Your task to perform on an android device: turn off smart reply in the gmail app Image 0: 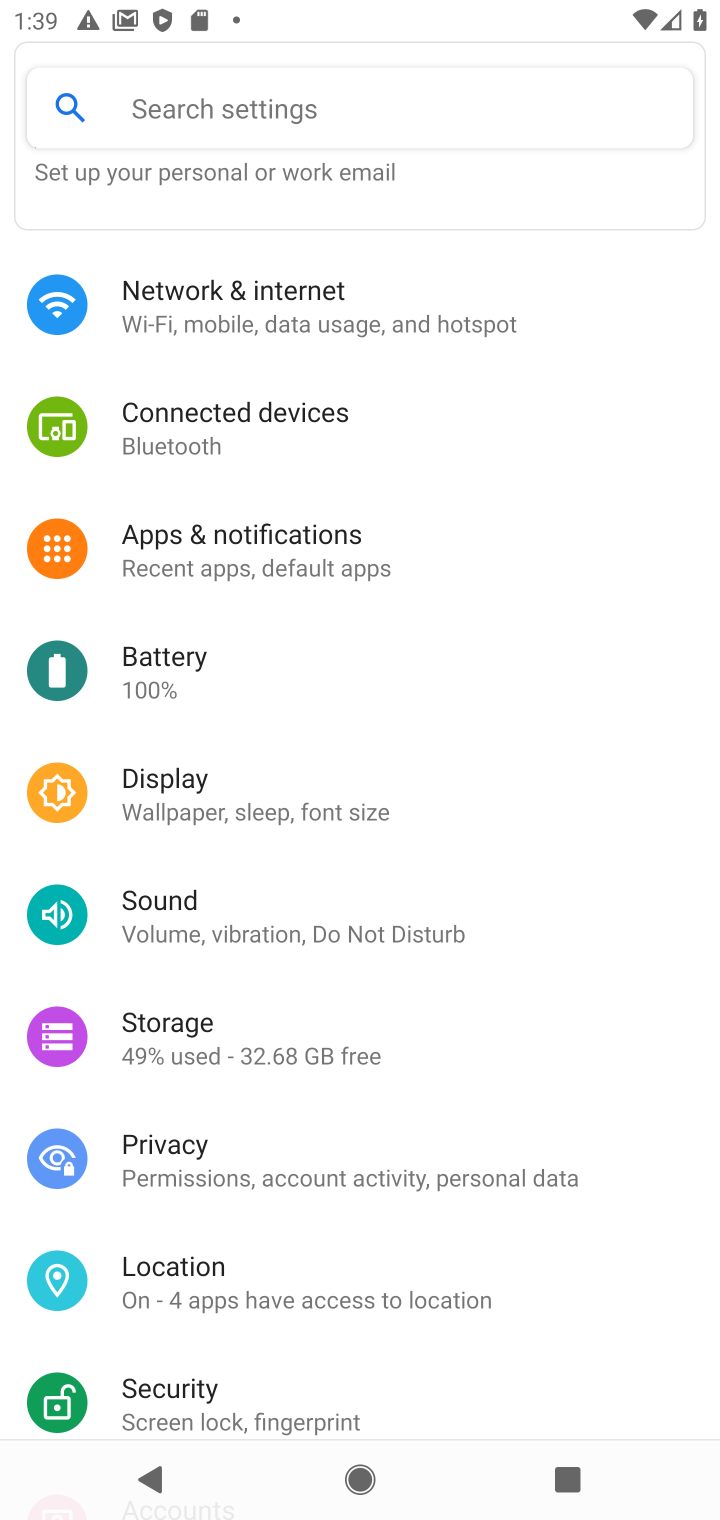
Step 0: press back button
Your task to perform on an android device: turn off smart reply in the gmail app Image 1: 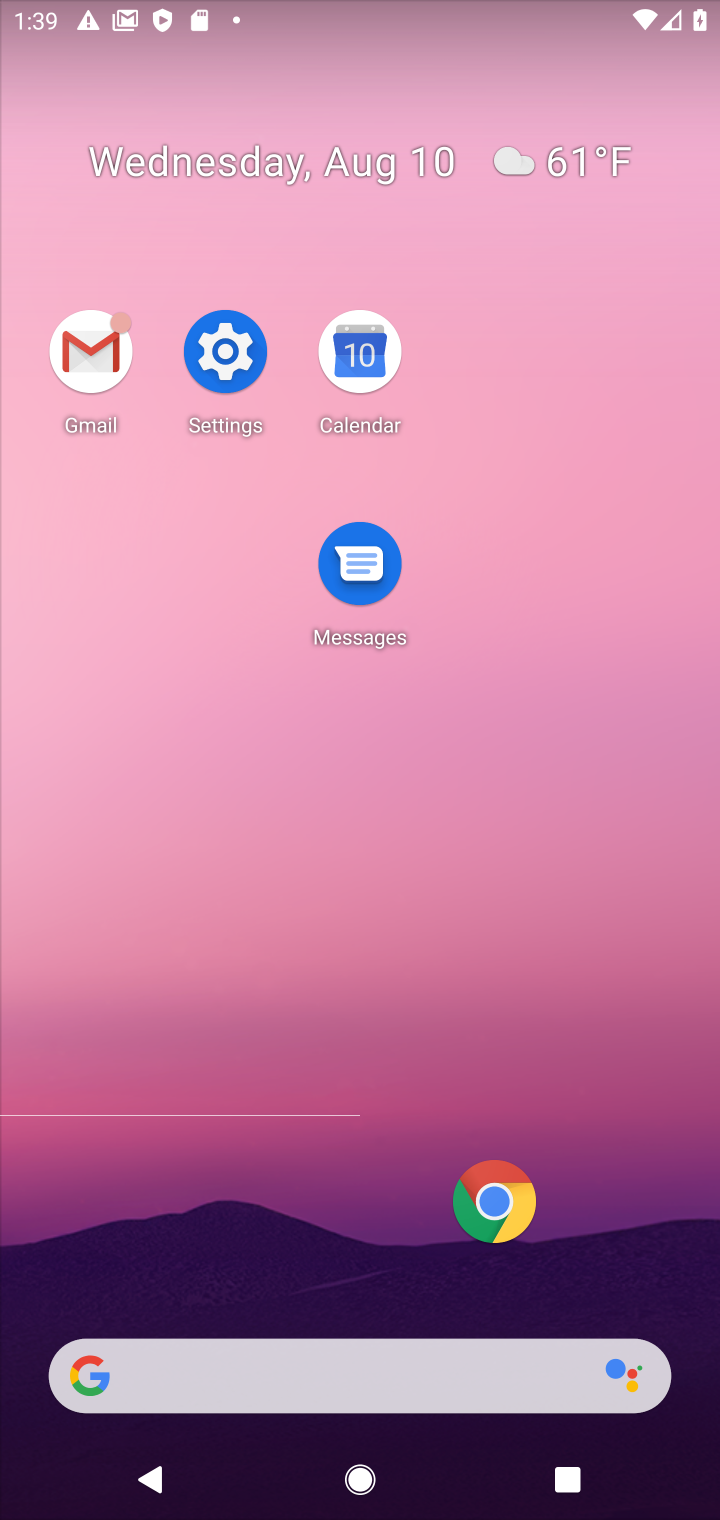
Step 1: drag from (277, 1079) to (289, 650)
Your task to perform on an android device: turn off smart reply in the gmail app Image 2: 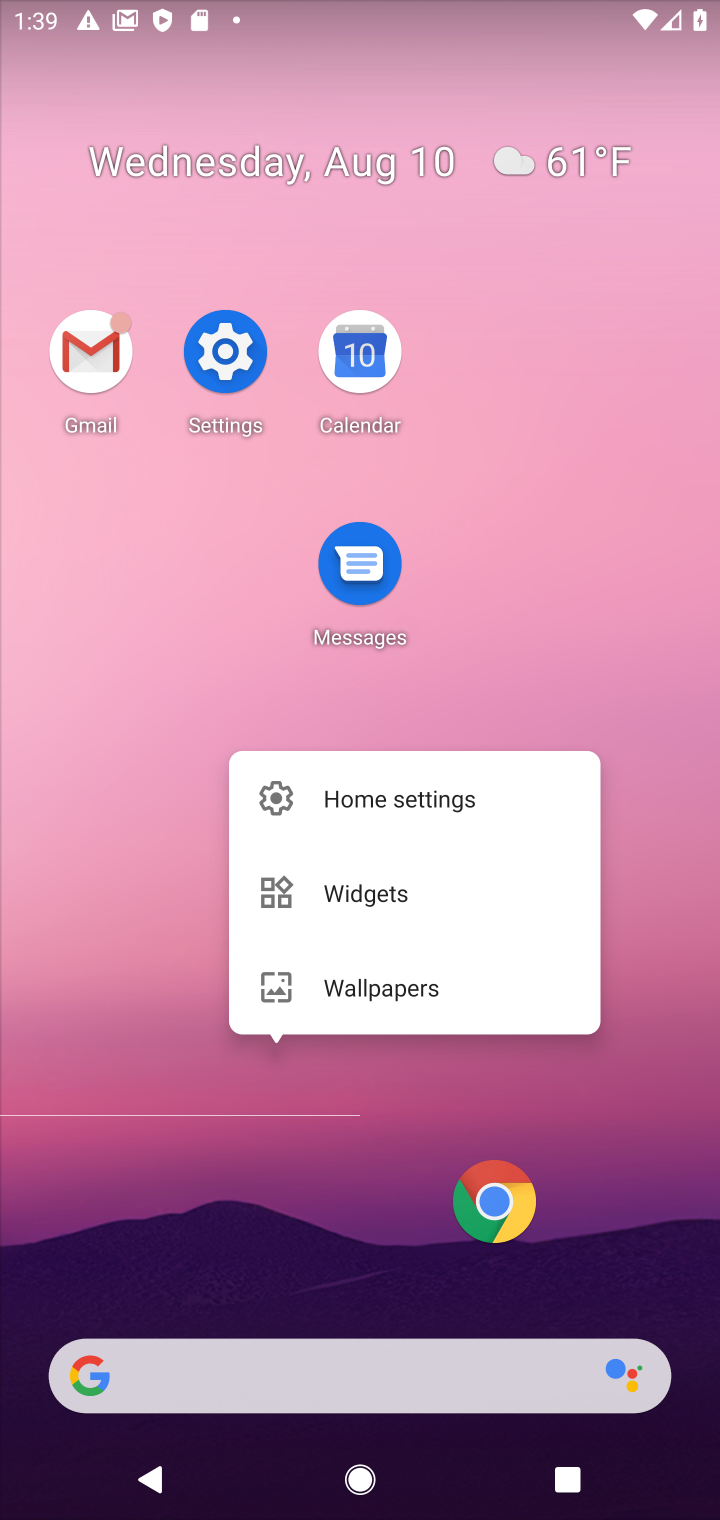
Step 2: click (92, 357)
Your task to perform on an android device: turn off smart reply in the gmail app Image 3: 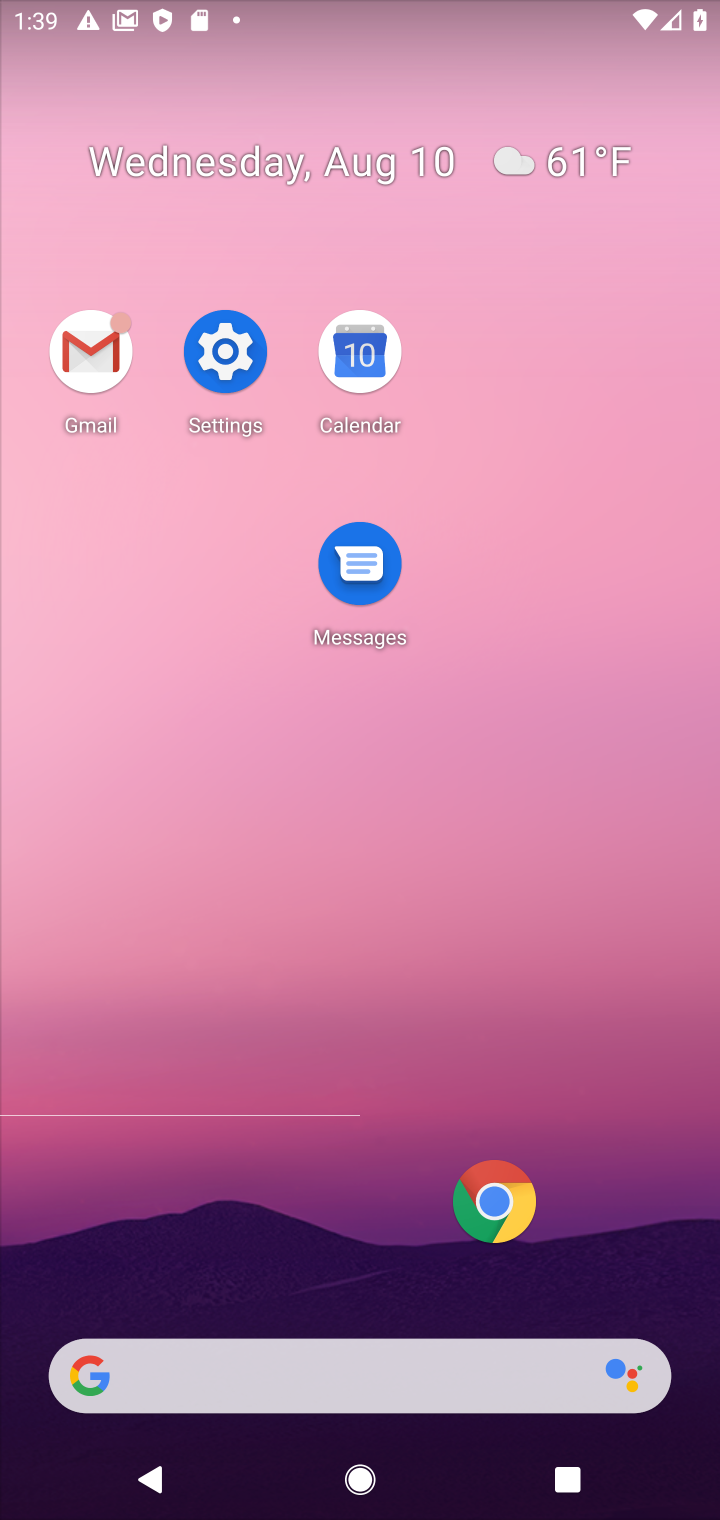
Step 3: click (101, 357)
Your task to perform on an android device: turn off smart reply in the gmail app Image 4: 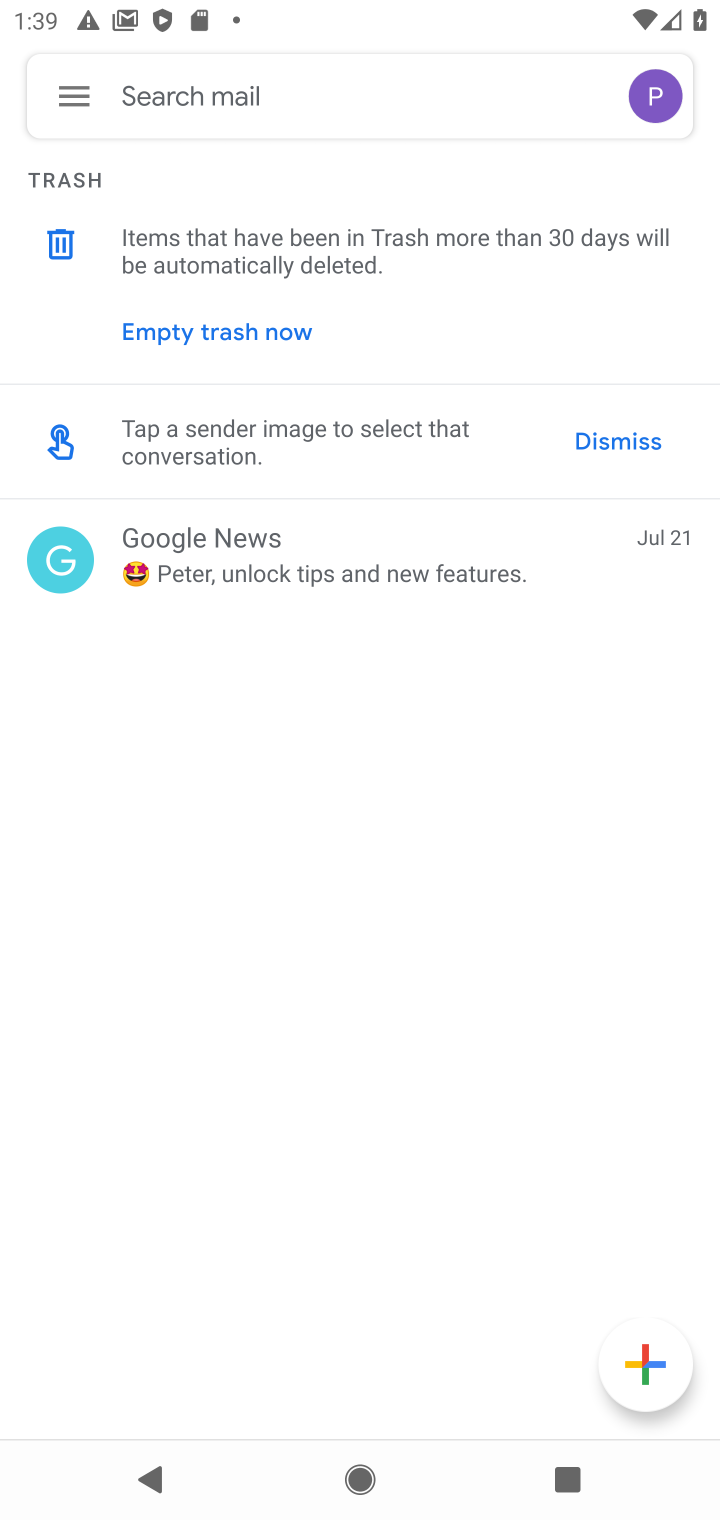
Step 4: drag from (60, 120) to (240, 120)
Your task to perform on an android device: turn off smart reply in the gmail app Image 5: 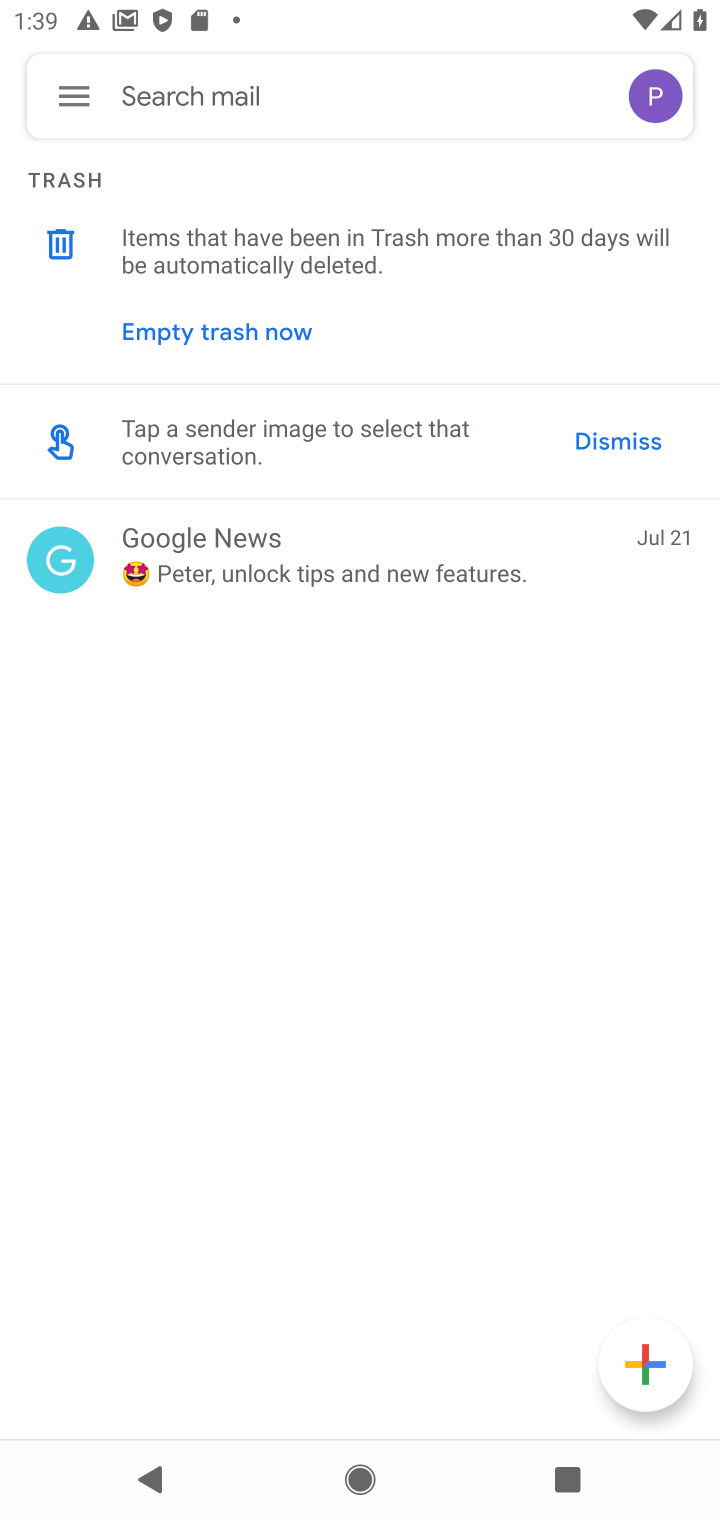
Step 5: click (68, 97)
Your task to perform on an android device: turn off smart reply in the gmail app Image 6: 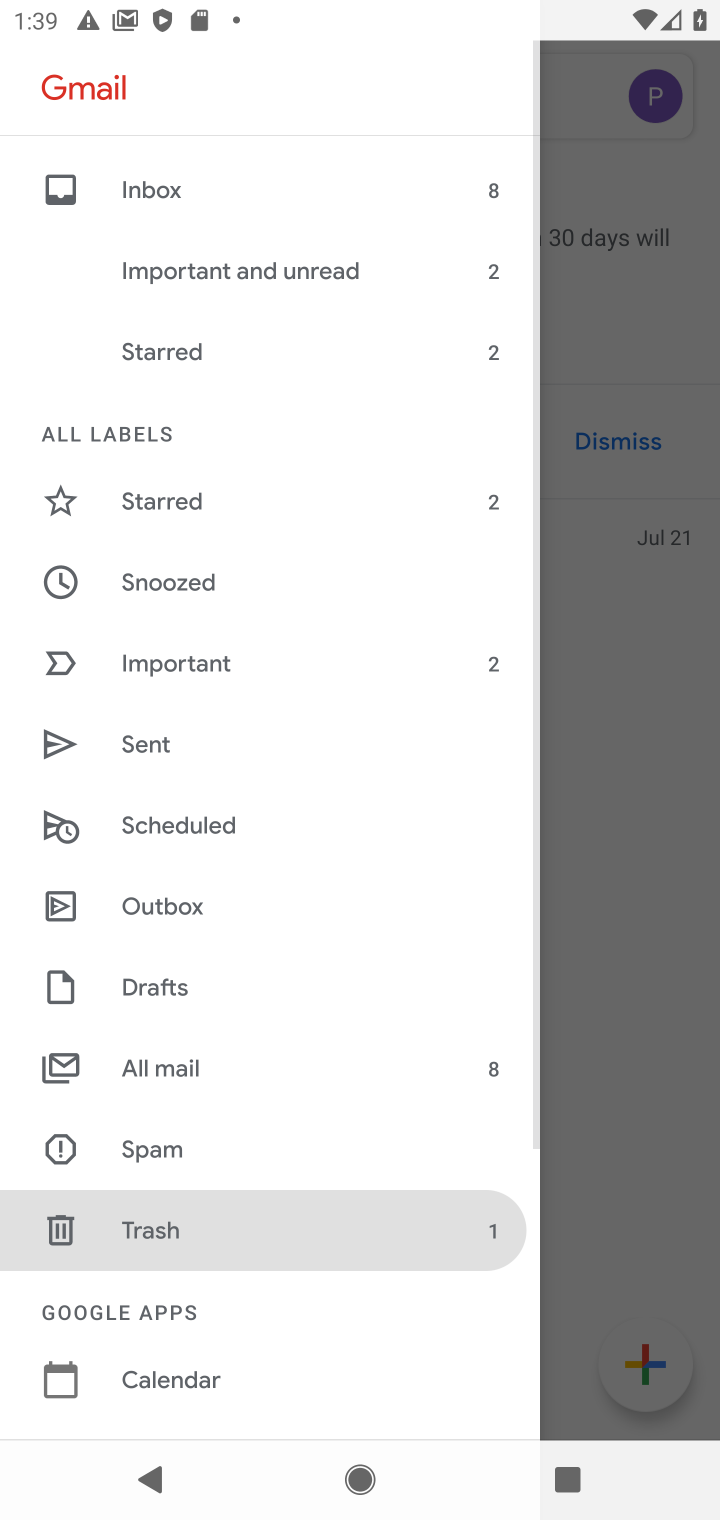
Step 6: drag from (213, 1327) to (59, 249)
Your task to perform on an android device: turn off smart reply in the gmail app Image 7: 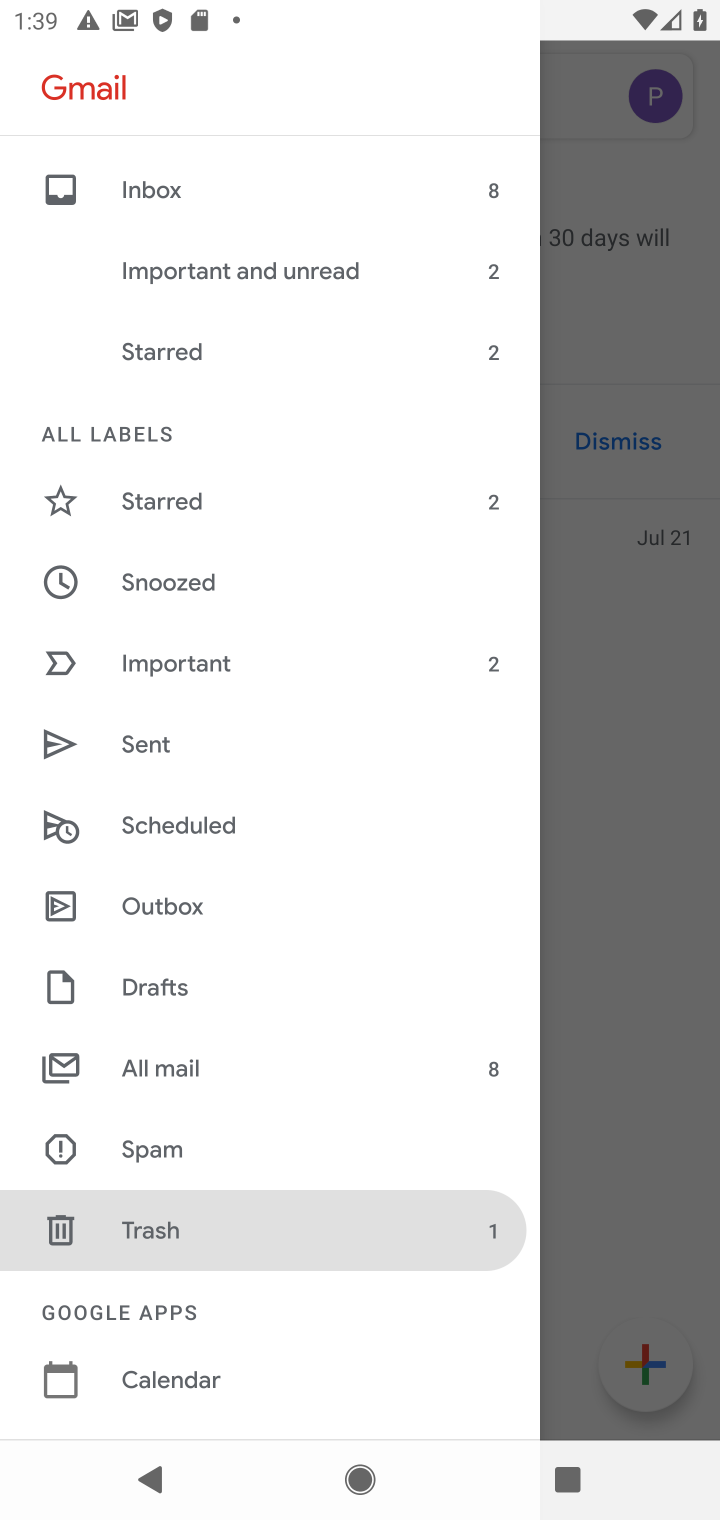
Step 7: drag from (289, 1315) to (341, 492)
Your task to perform on an android device: turn off smart reply in the gmail app Image 8: 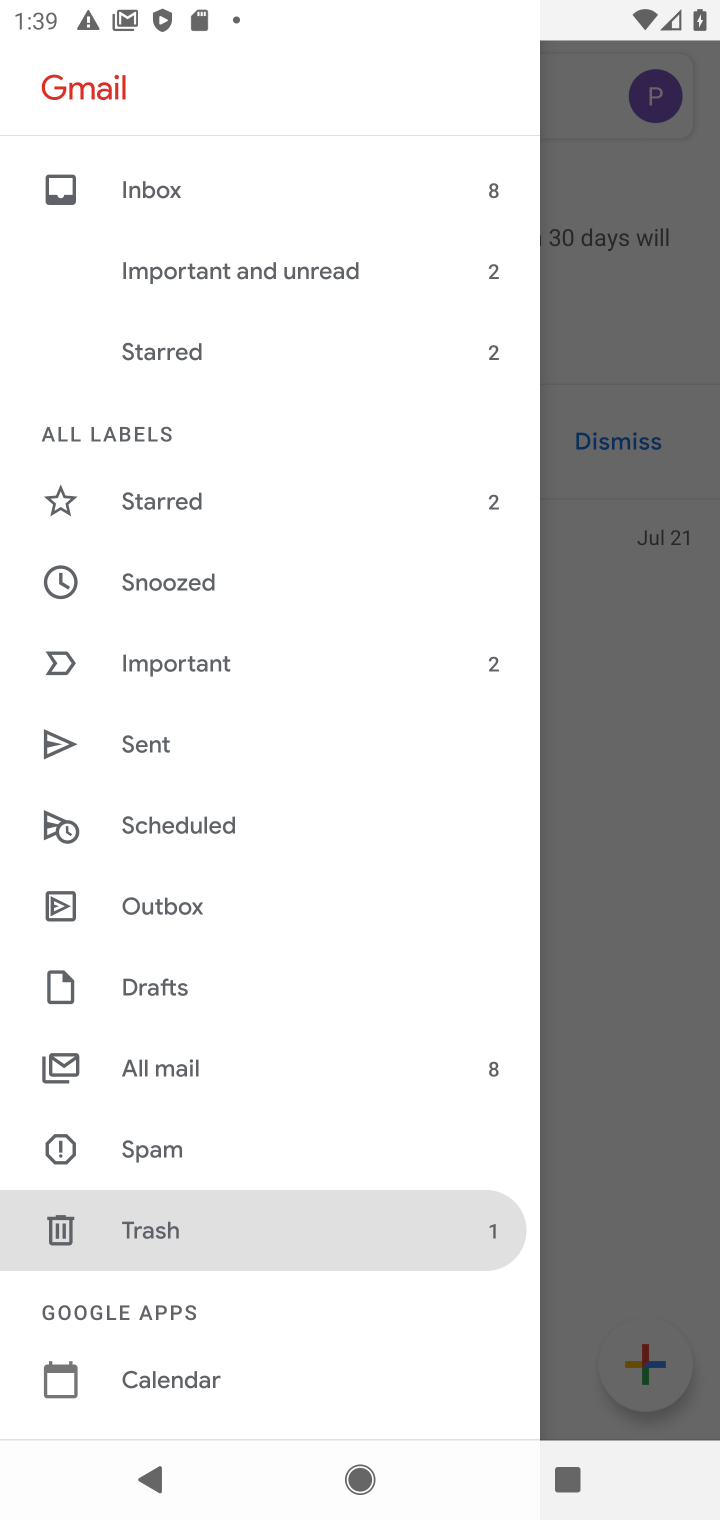
Step 8: drag from (276, 1020) to (300, 191)
Your task to perform on an android device: turn off smart reply in the gmail app Image 9: 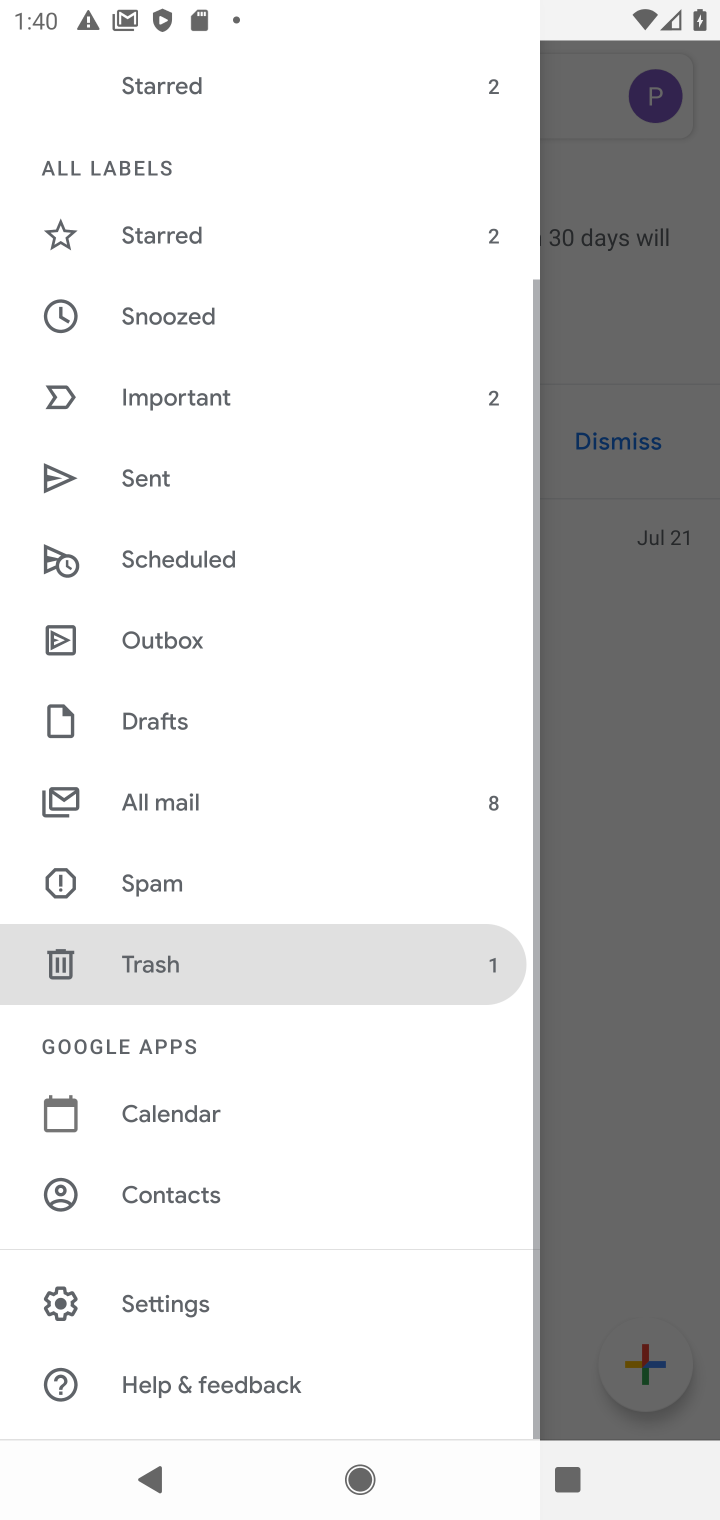
Step 9: click (285, 1276)
Your task to perform on an android device: turn off smart reply in the gmail app Image 10: 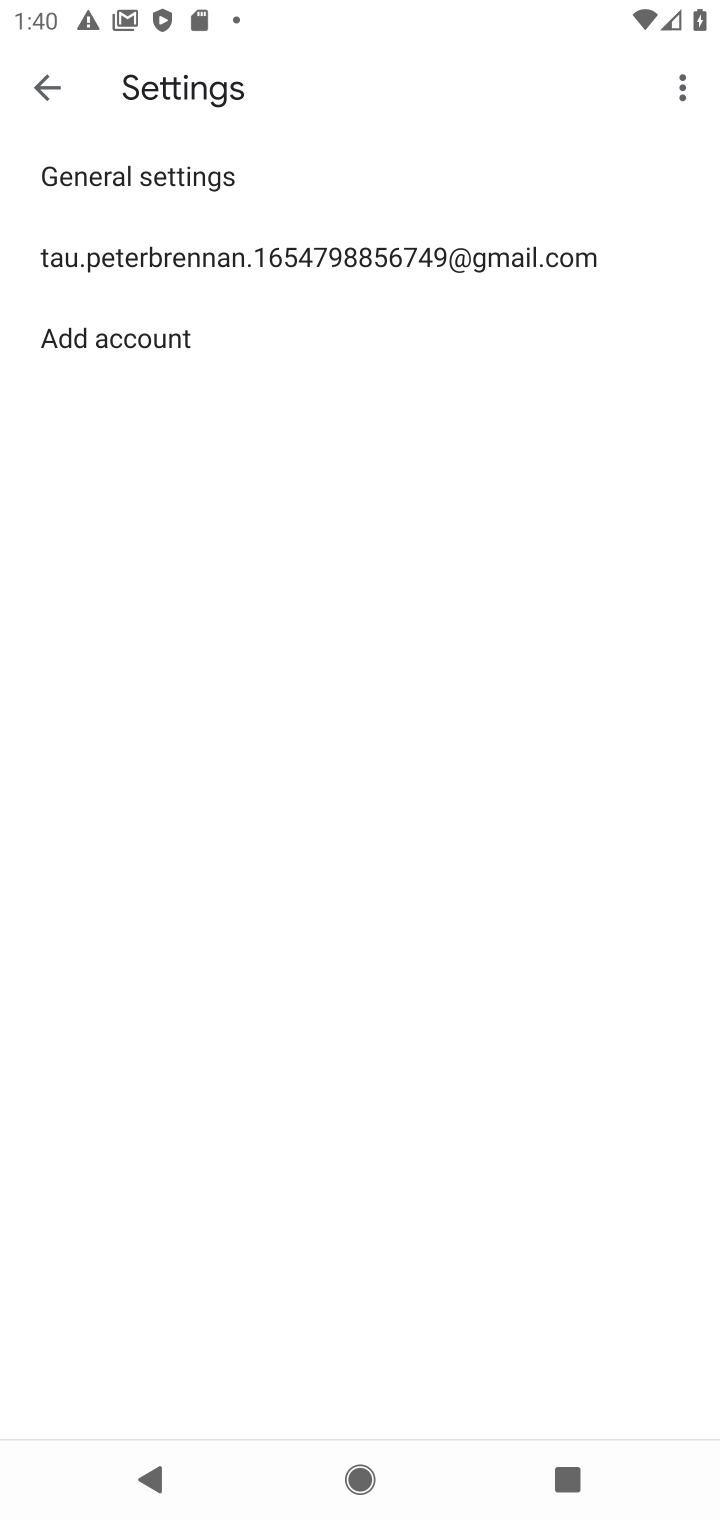
Step 10: click (340, 232)
Your task to perform on an android device: turn off smart reply in the gmail app Image 11: 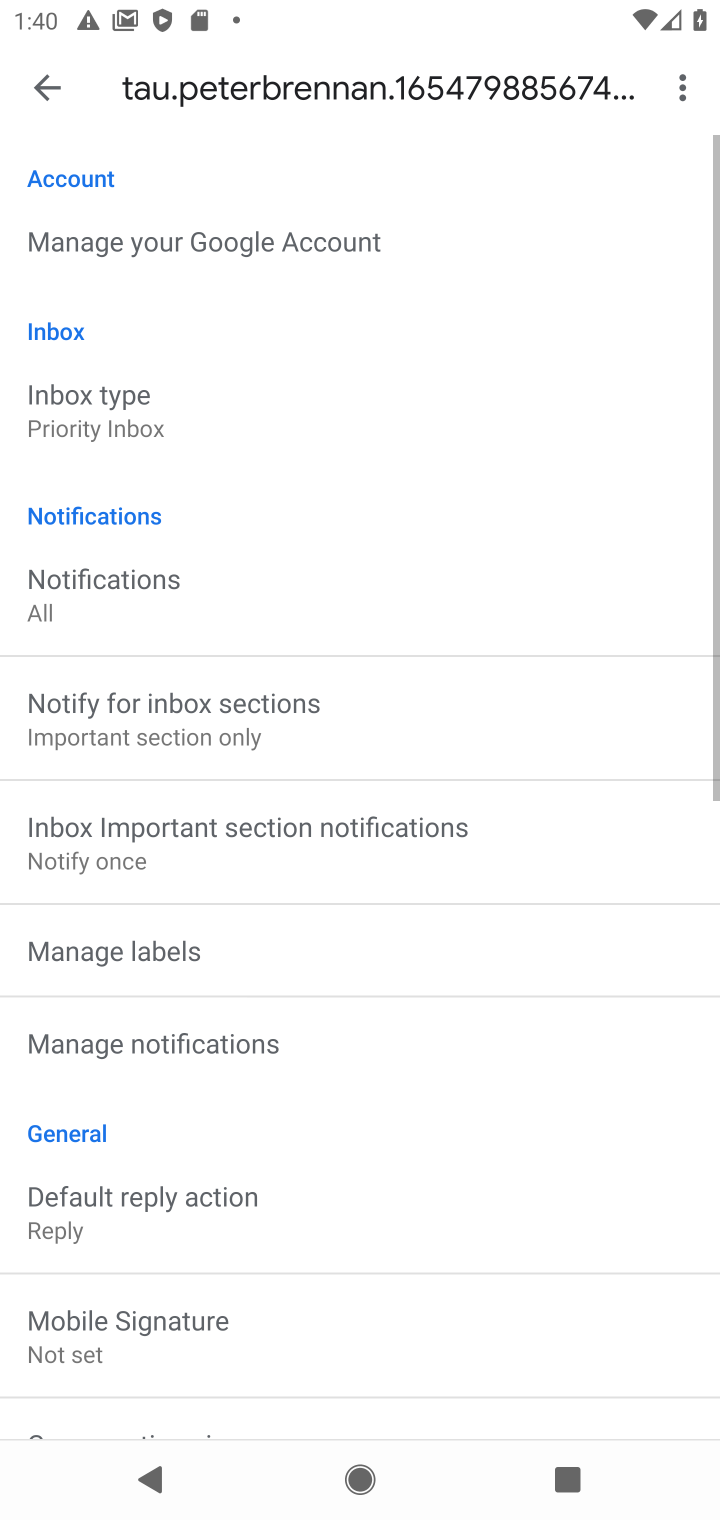
Step 11: drag from (369, 1172) to (364, 261)
Your task to perform on an android device: turn off smart reply in the gmail app Image 12: 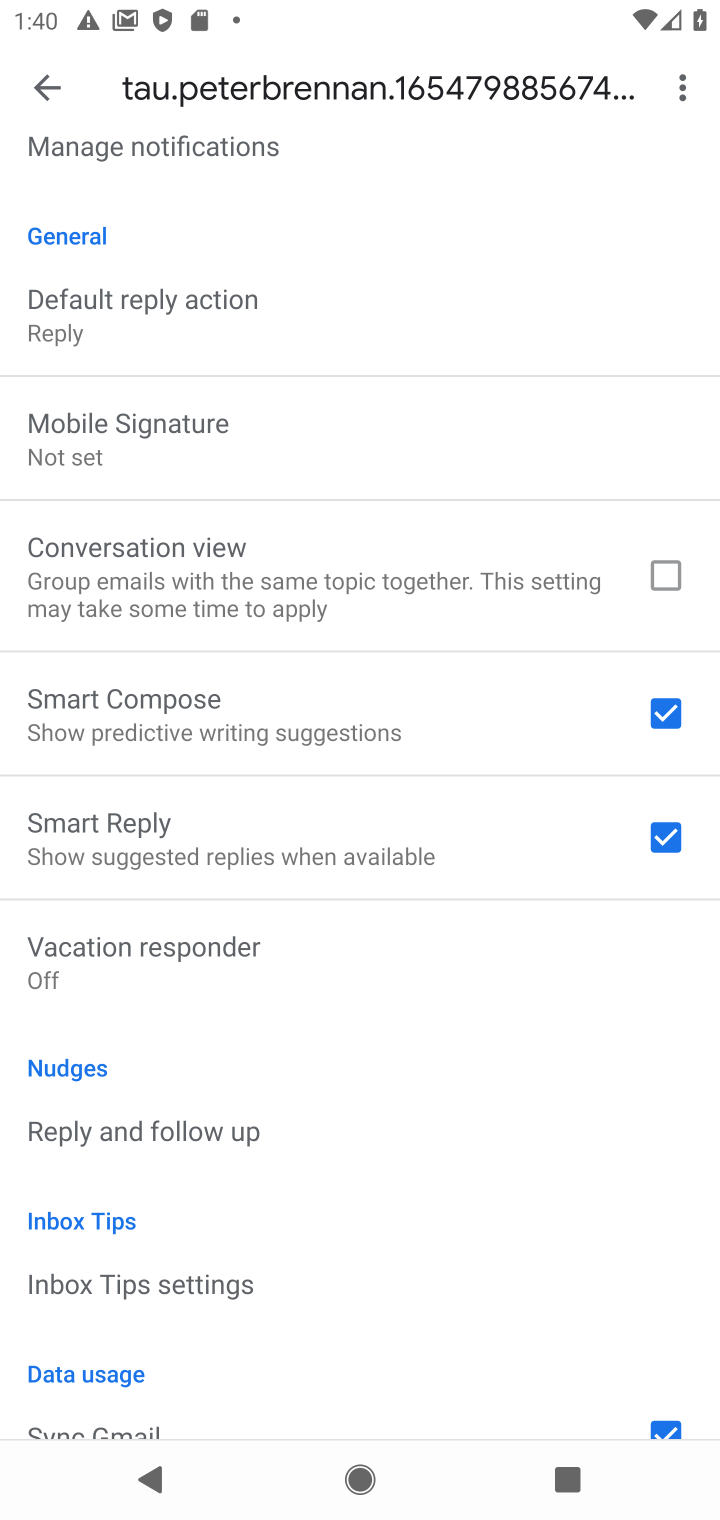
Step 12: click (656, 835)
Your task to perform on an android device: turn off smart reply in the gmail app Image 13: 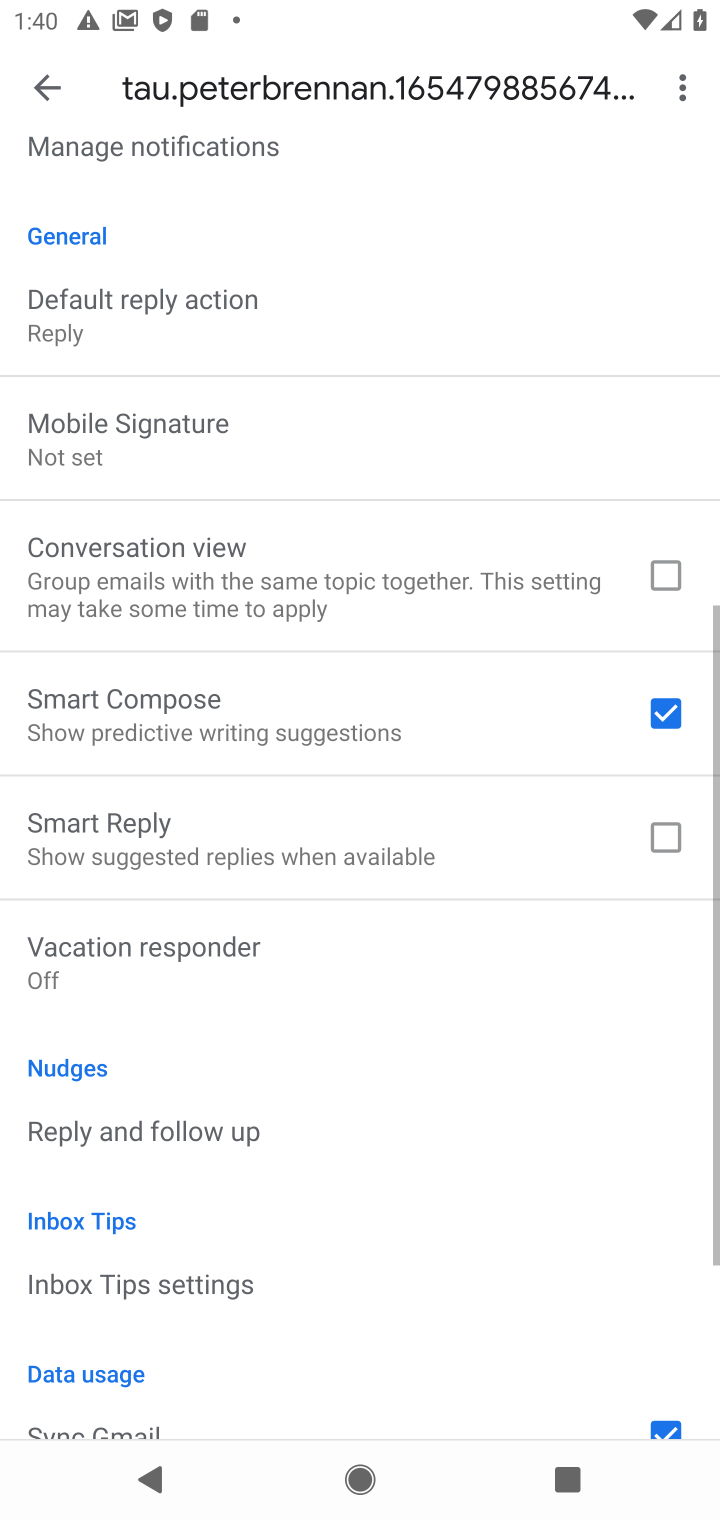
Step 13: task complete